Your task to perform on an android device: add a label to a message in the gmail app Image 0: 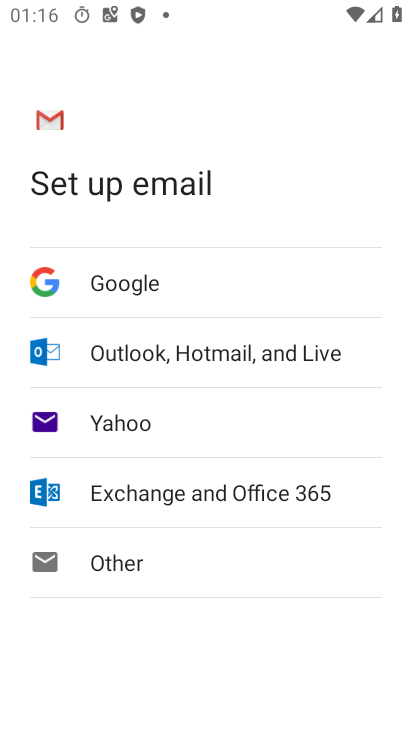
Step 0: press home button
Your task to perform on an android device: add a label to a message in the gmail app Image 1: 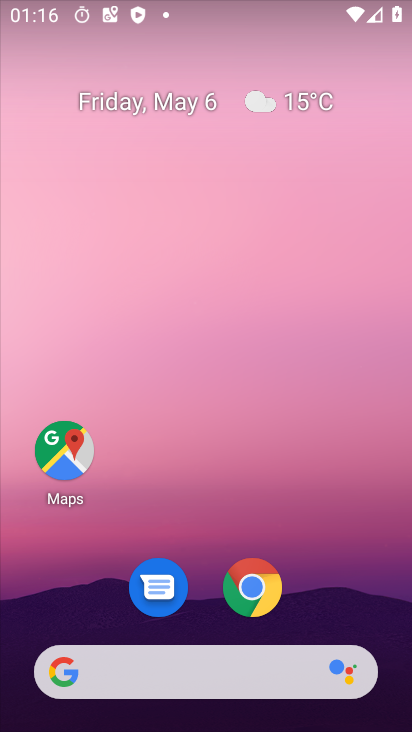
Step 1: drag from (376, 617) to (392, 348)
Your task to perform on an android device: add a label to a message in the gmail app Image 2: 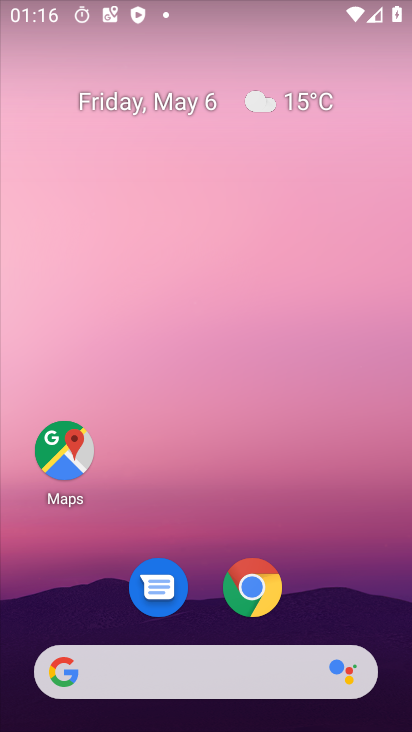
Step 2: drag from (400, 475) to (409, 267)
Your task to perform on an android device: add a label to a message in the gmail app Image 3: 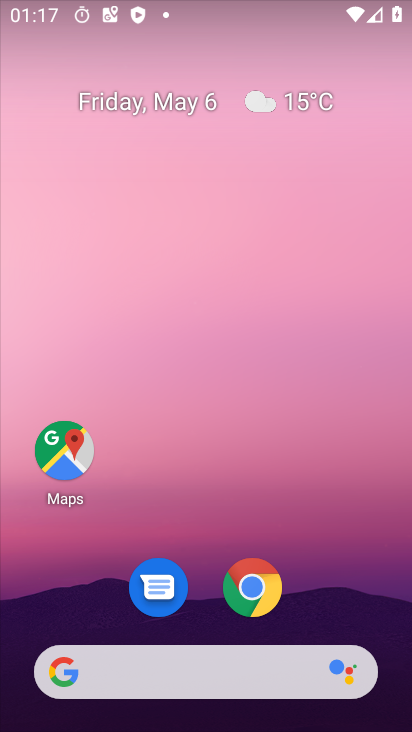
Step 3: drag from (391, 648) to (411, 128)
Your task to perform on an android device: add a label to a message in the gmail app Image 4: 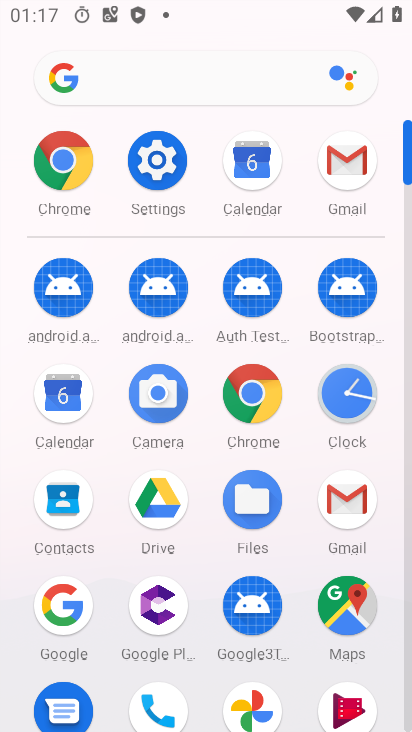
Step 4: click (339, 509)
Your task to perform on an android device: add a label to a message in the gmail app Image 5: 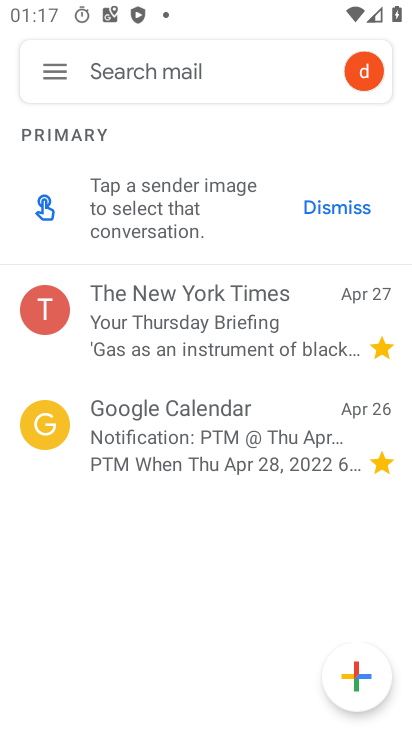
Step 5: click (46, 73)
Your task to perform on an android device: add a label to a message in the gmail app Image 6: 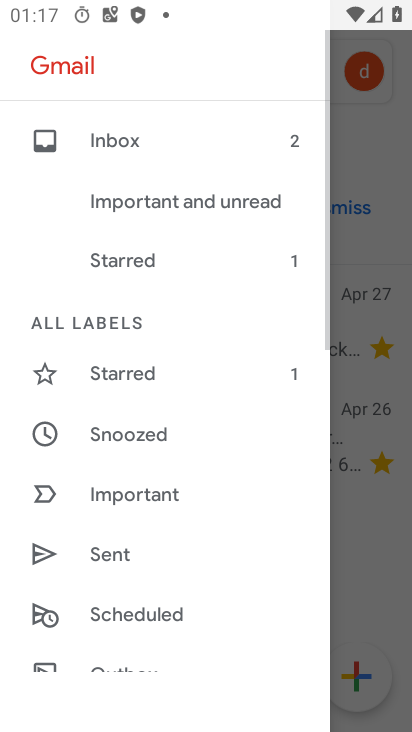
Step 6: click (108, 133)
Your task to perform on an android device: add a label to a message in the gmail app Image 7: 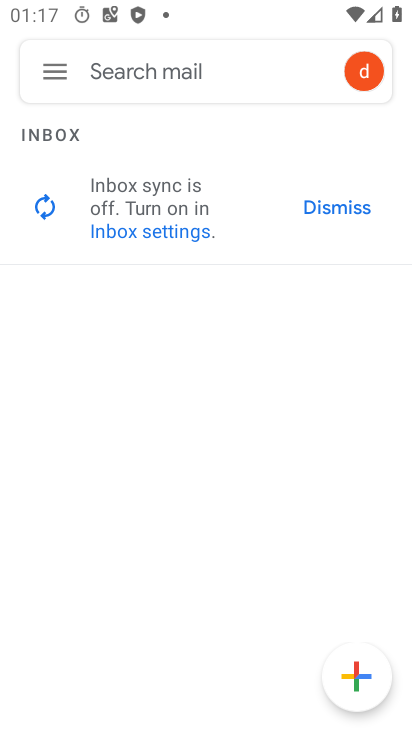
Step 7: click (60, 72)
Your task to perform on an android device: add a label to a message in the gmail app Image 8: 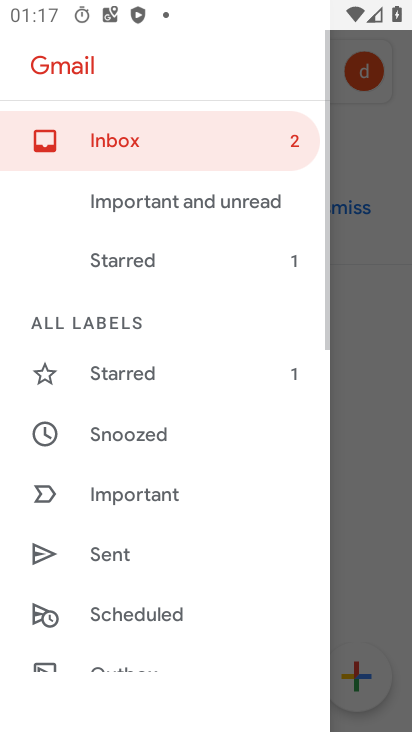
Step 8: click (111, 154)
Your task to perform on an android device: add a label to a message in the gmail app Image 9: 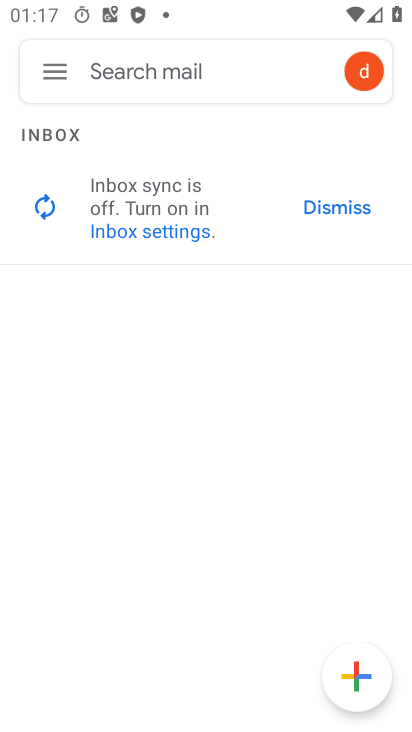
Step 9: task complete